Your task to perform on an android device: turn off wifi Image 0: 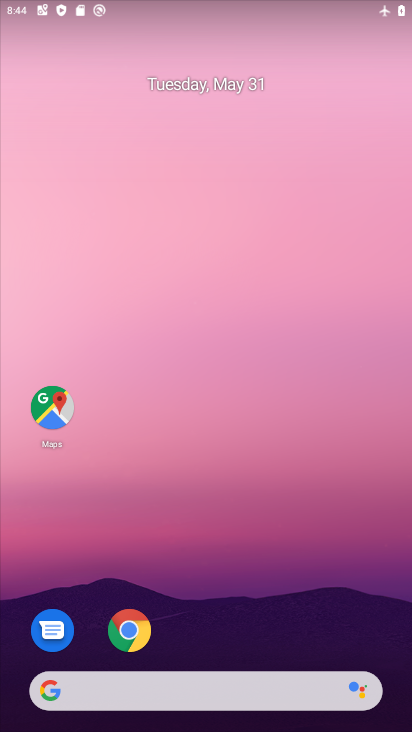
Step 0: drag from (245, 569) to (229, 331)
Your task to perform on an android device: turn off wifi Image 1: 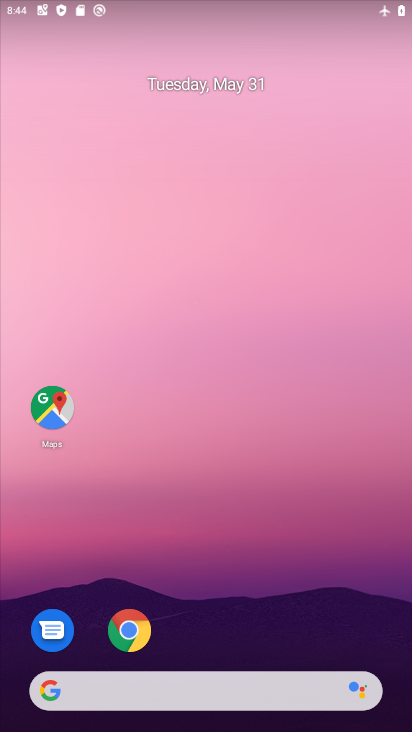
Step 1: drag from (281, 603) to (253, 201)
Your task to perform on an android device: turn off wifi Image 2: 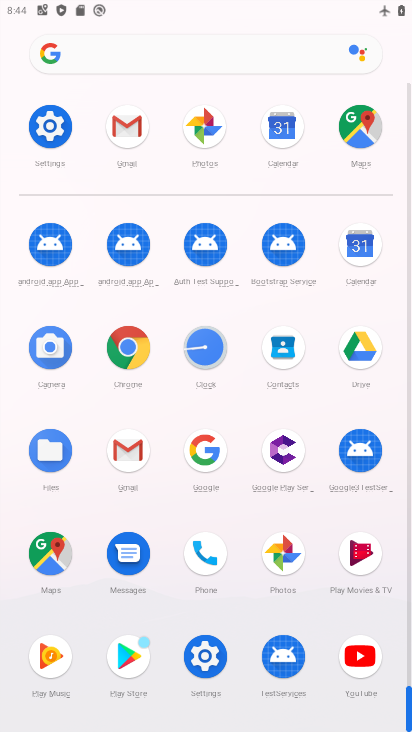
Step 2: click (61, 112)
Your task to perform on an android device: turn off wifi Image 3: 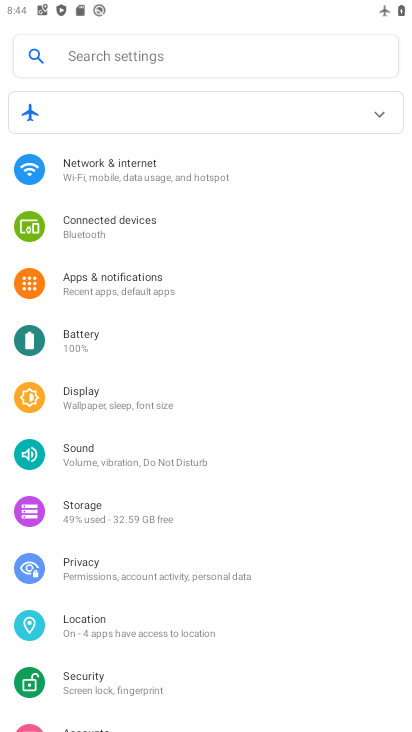
Step 3: click (151, 165)
Your task to perform on an android device: turn off wifi Image 4: 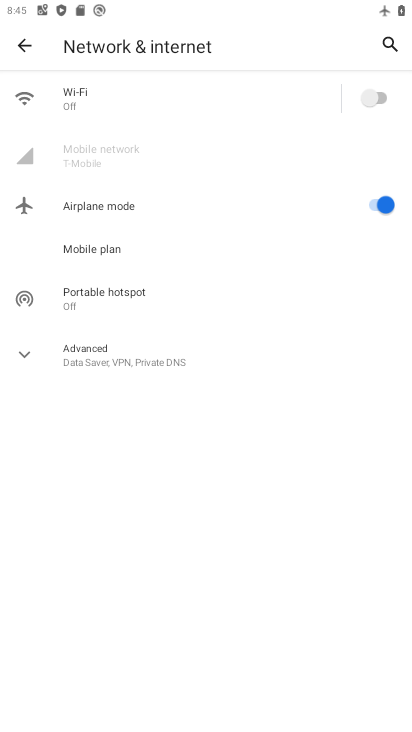
Step 4: task complete